Your task to perform on an android device: Open settings on Google Maps Image 0: 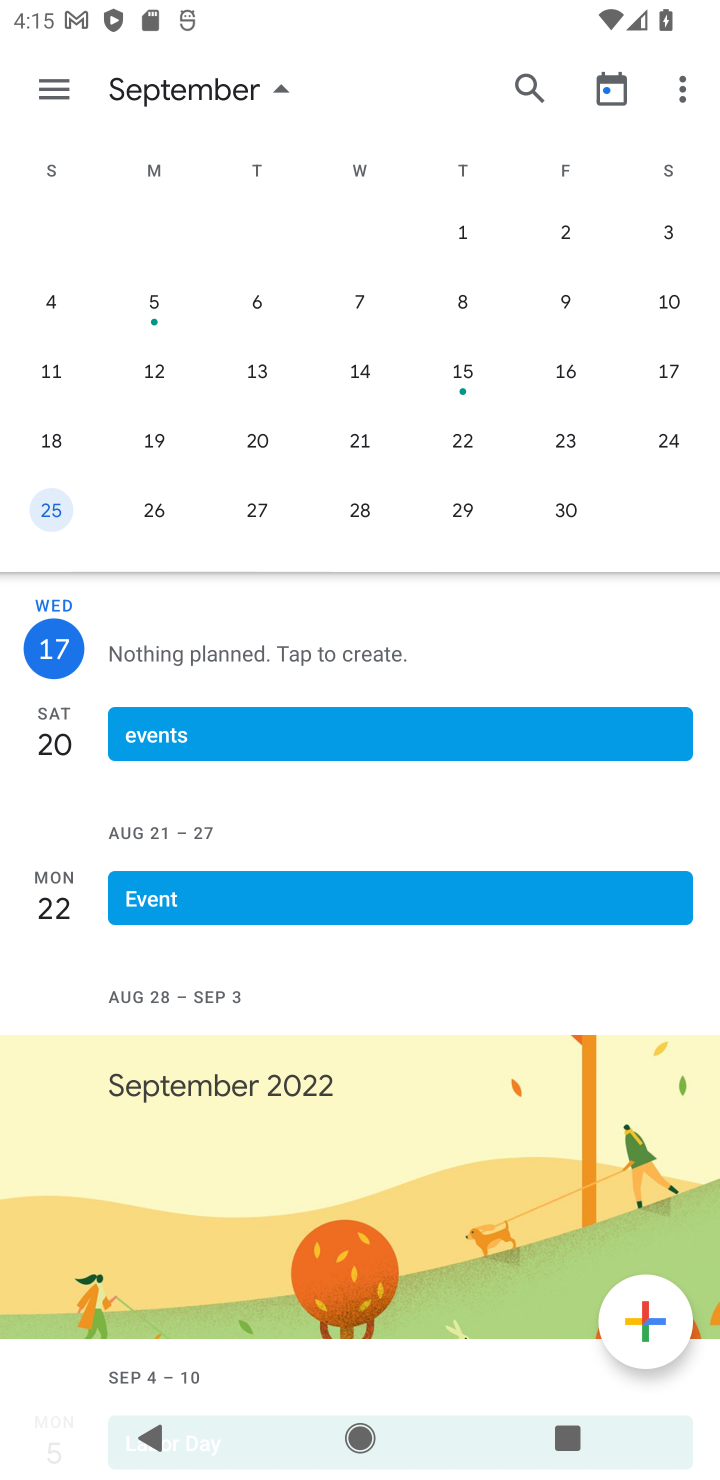
Step 0: press home button
Your task to perform on an android device: Open settings on Google Maps Image 1: 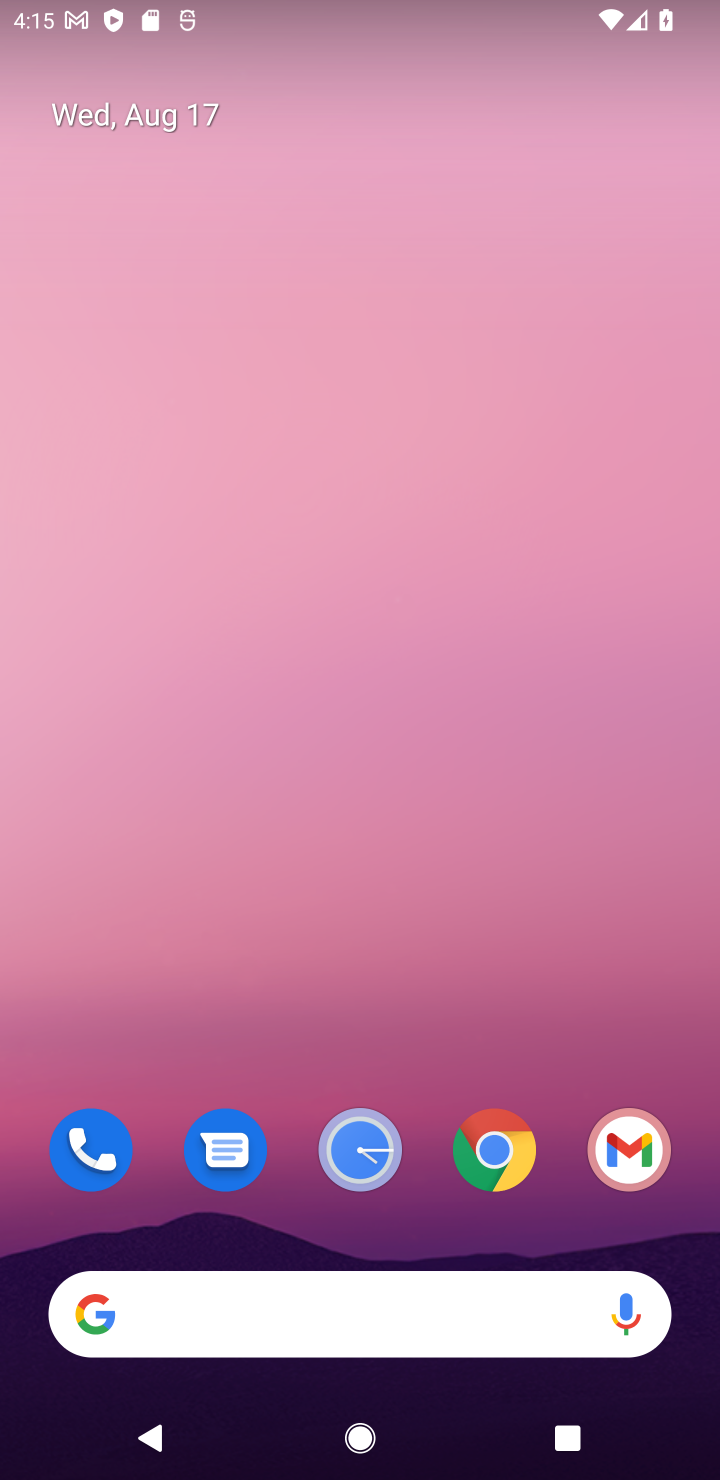
Step 1: drag from (567, 1226) to (517, 28)
Your task to perform on an android device: Open settings on Google Maps Image 2: 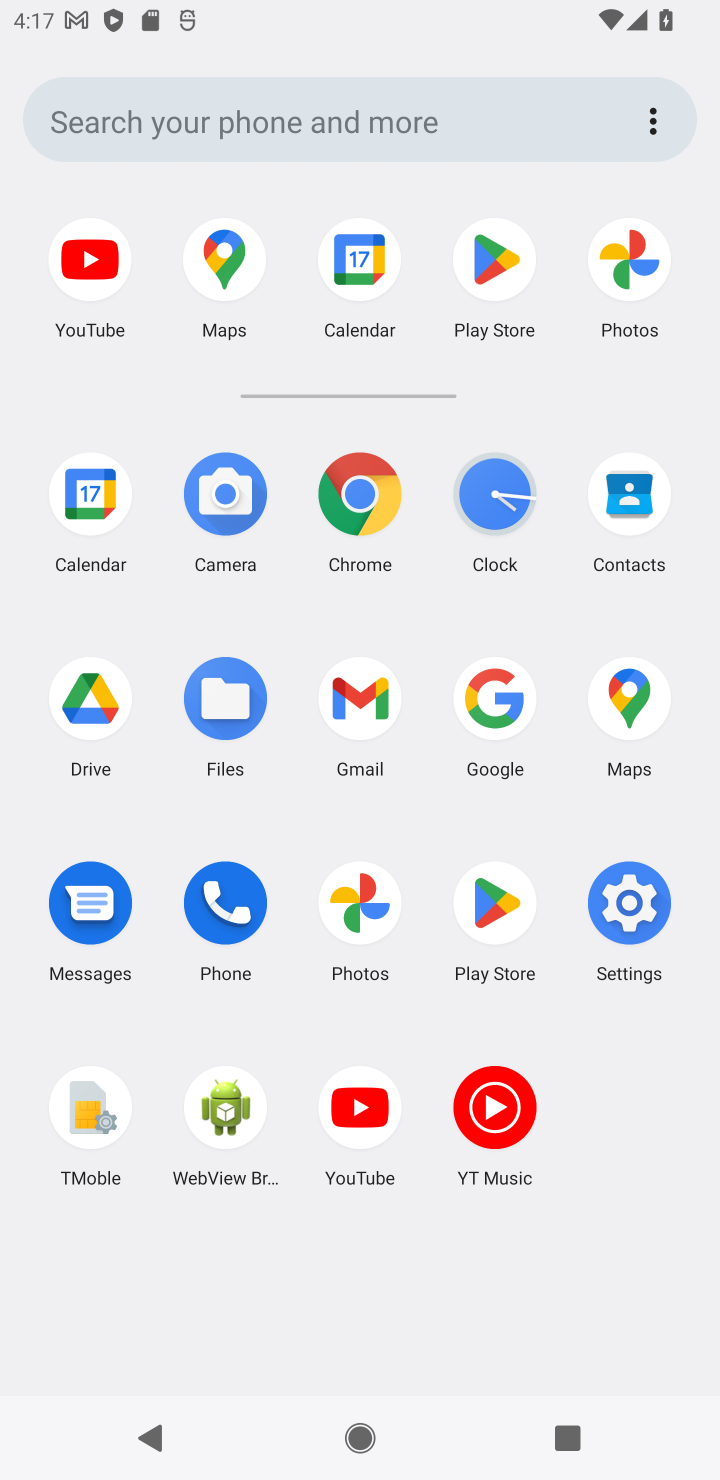
Step 2: click (620, 697)
Your task to perform on an android device: Open settings on Google Maps Image 3: 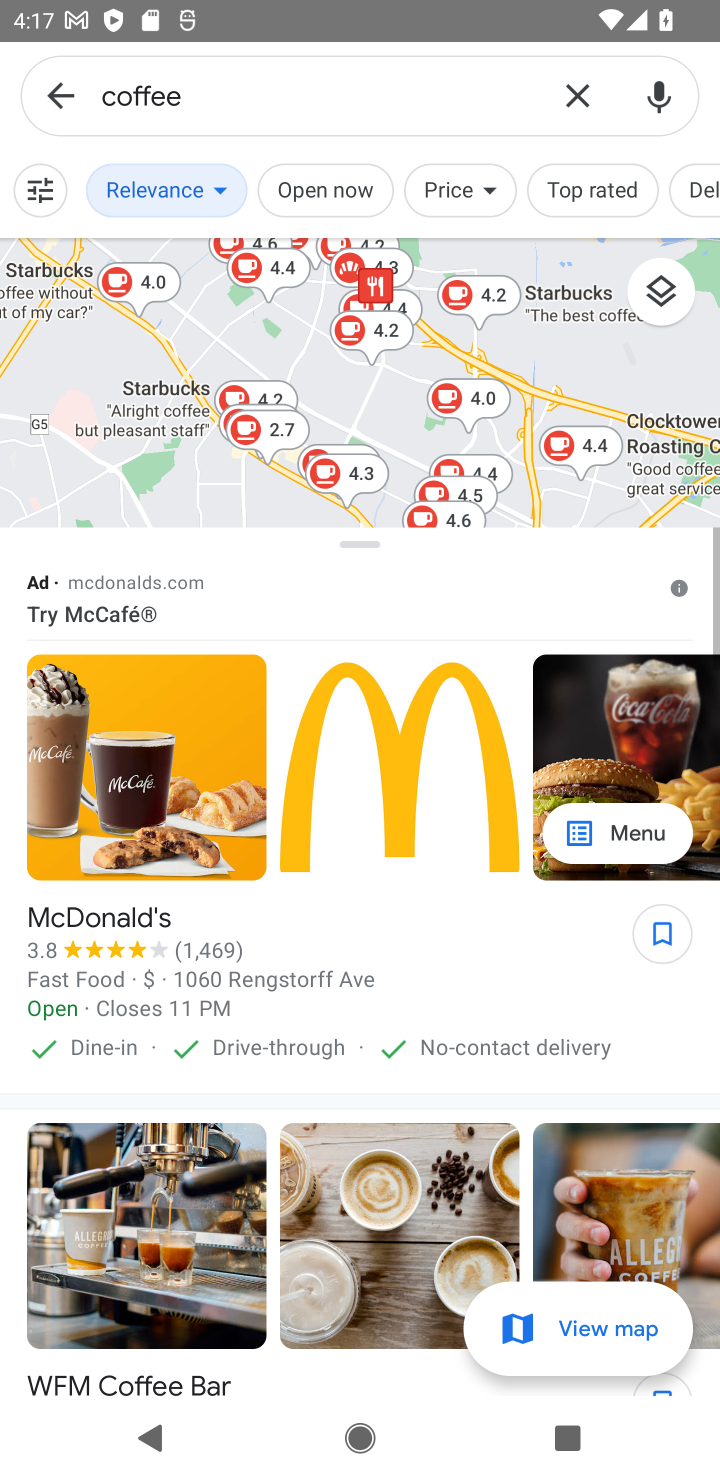
Step 3: click (571, 107)
Your task to perform on an android device: Open settings on Google Maps Image 4: 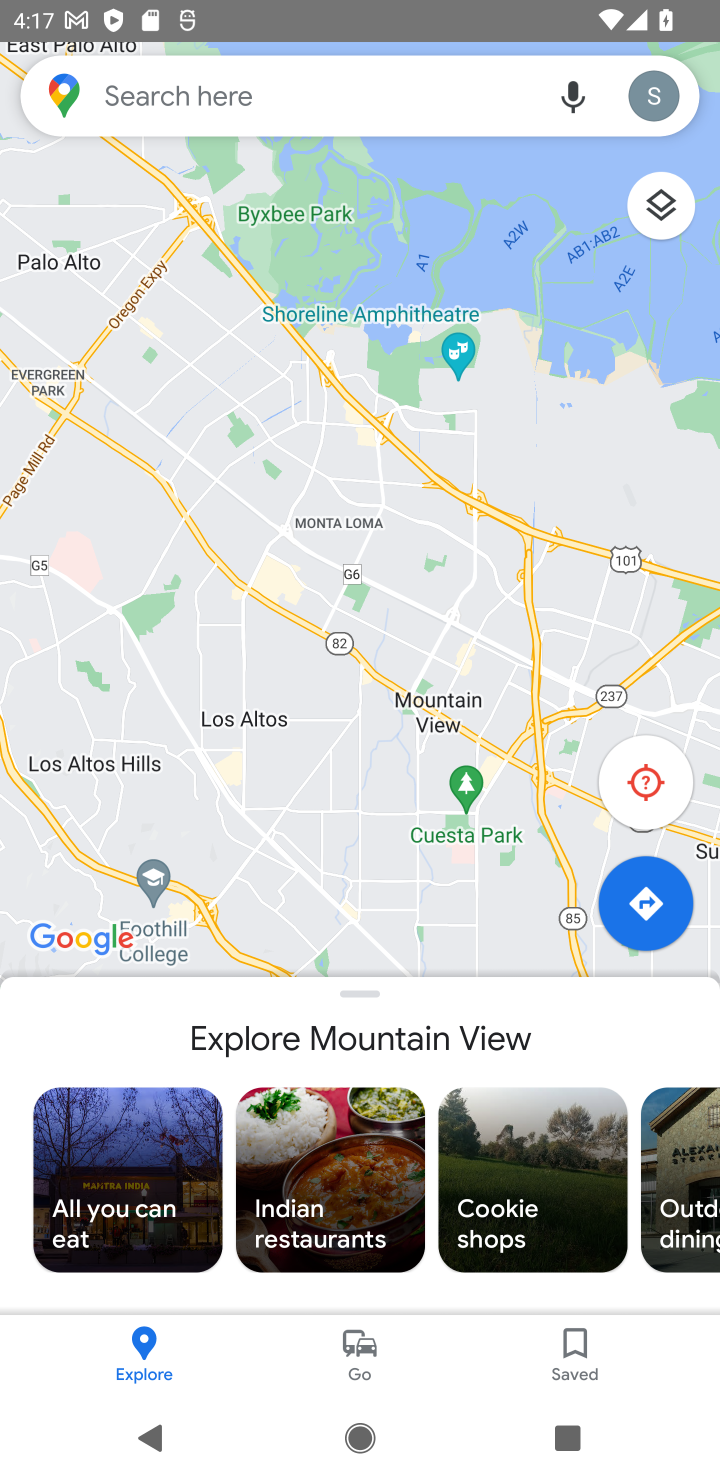
Step 4: click (664, 111)
Your task to perform on an android device: Open settings on Google Maps Image 5: 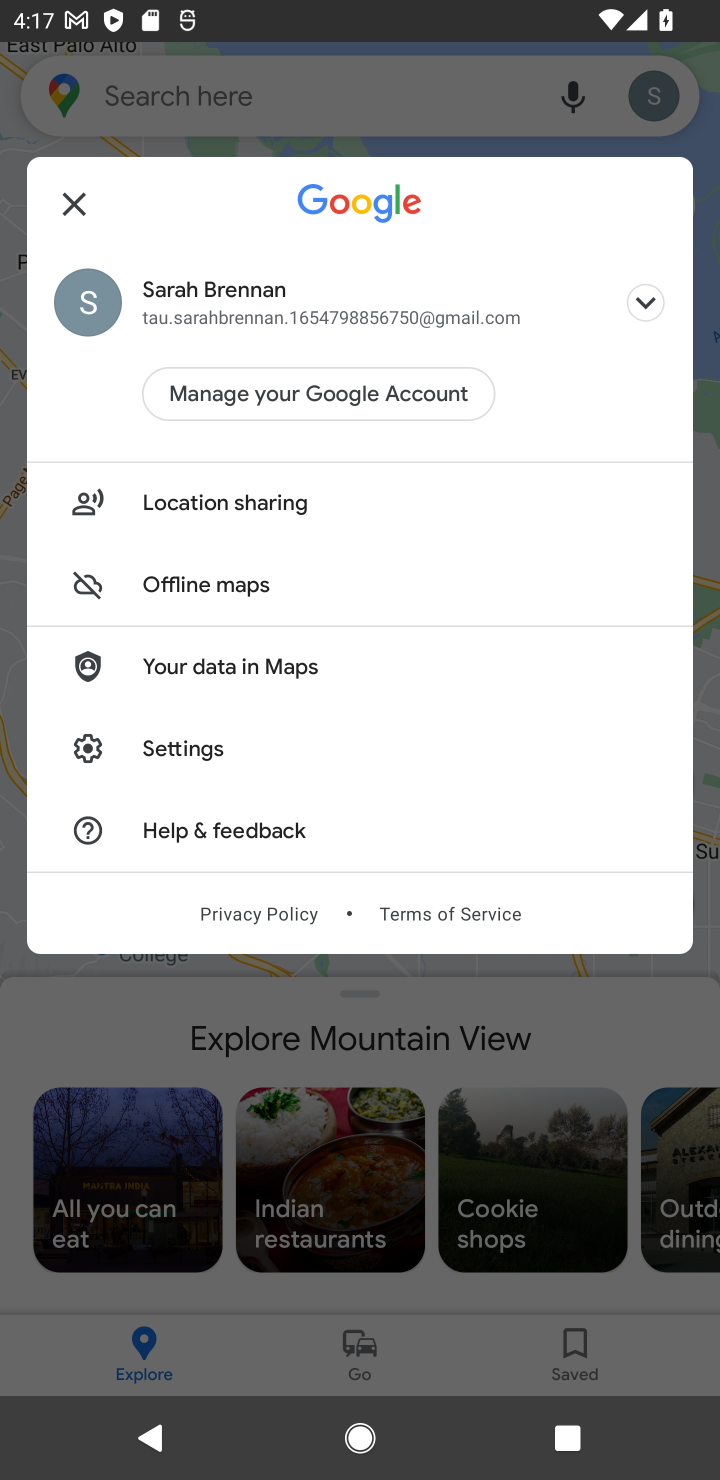
Step 5: click (164, 759)
Your task to perform on an android device: Open settings on Google Maps Image 6: 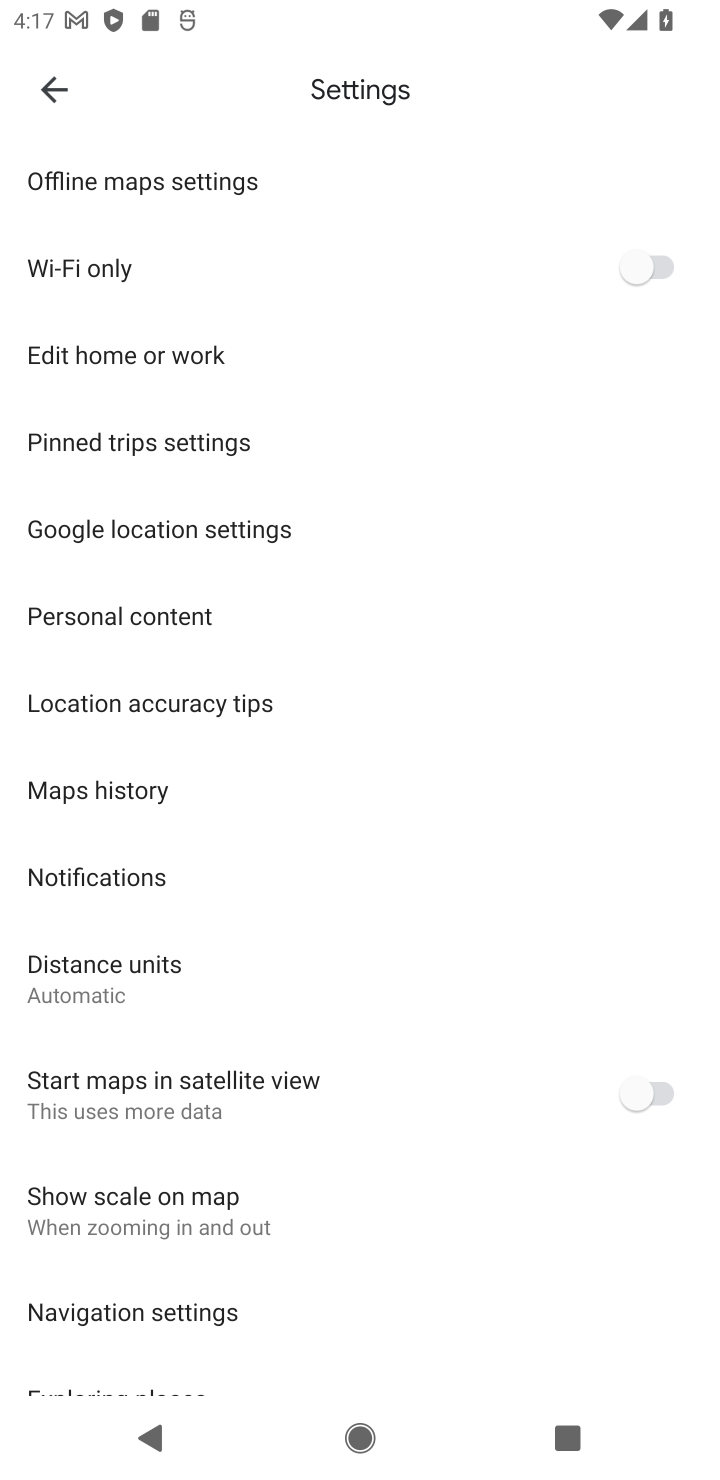
Step 6: task complete